Your task to perform on an android device: change notifications settings Image 0: 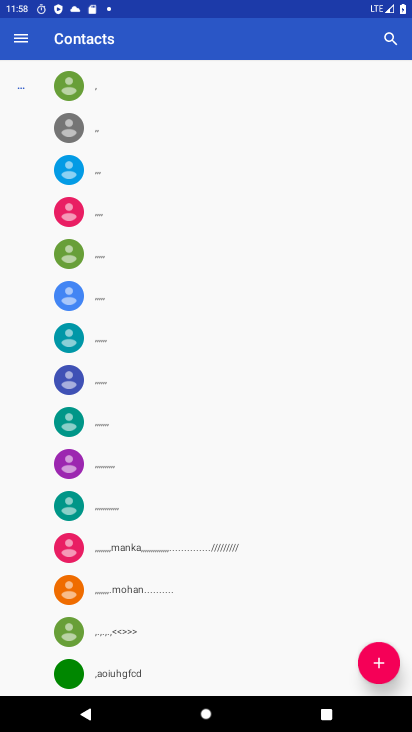
Step 0: press home button
Your task to perform on an android device: change notifications settings Image 1: 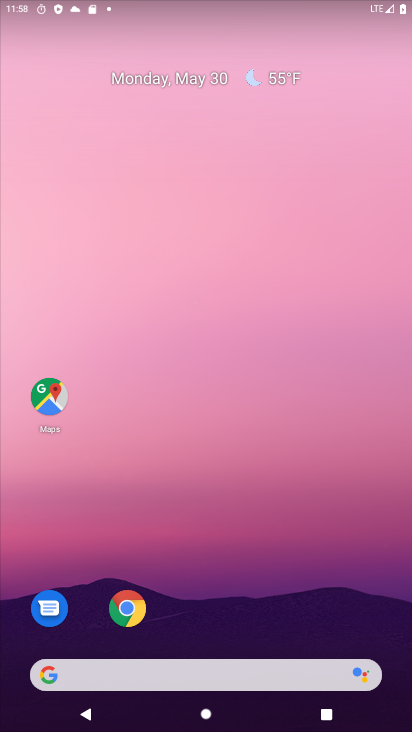
Step 1: drag from (271, 626) to (302, 5)
Your task to perform on an android device: change notifications settings Image 2: 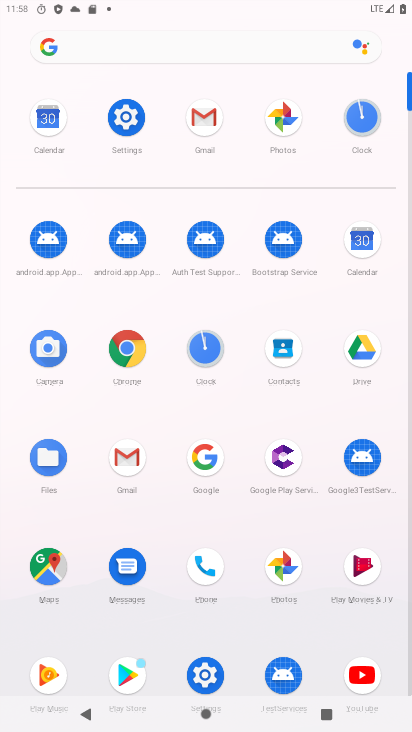
Step 2: click (127, 112)
Your task to perform on an android device: change notifications settings Image 3: 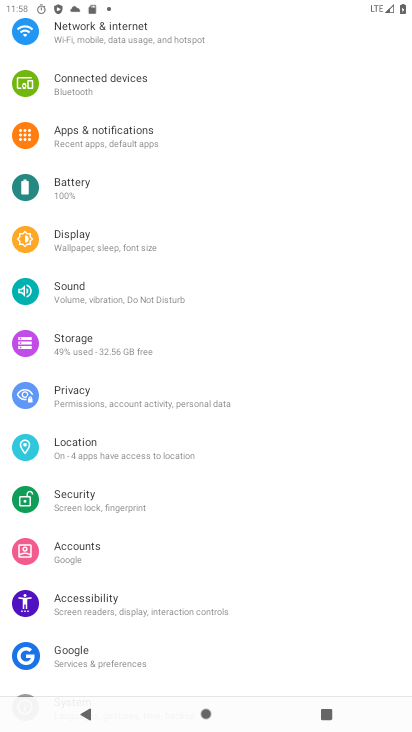
Step 3: click (123, 143)
Your task to perform on an android device: change notifications settings Image 4: 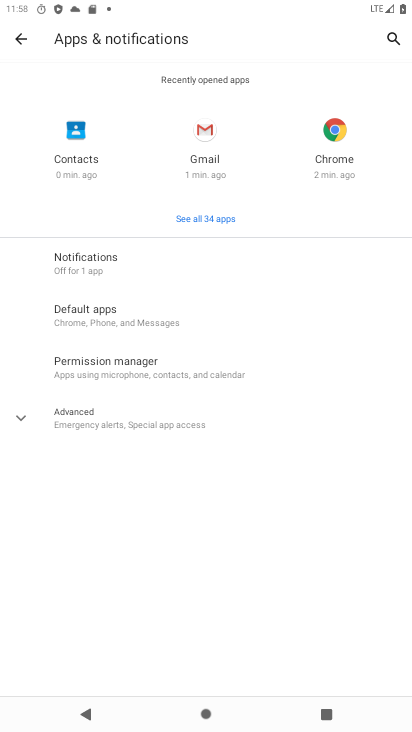
Step 4: click (94, 263)
Your task to perform on an android device: change notifications settings Image 5: 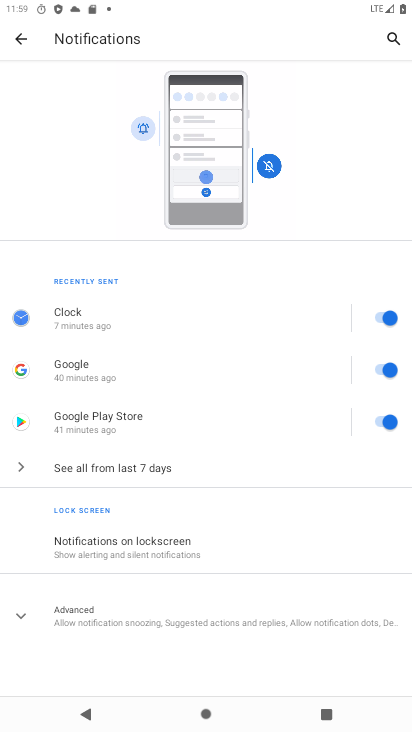
Step 5: click (127, 473)
Your task to perform on an android device: change notifications settings Image 6: 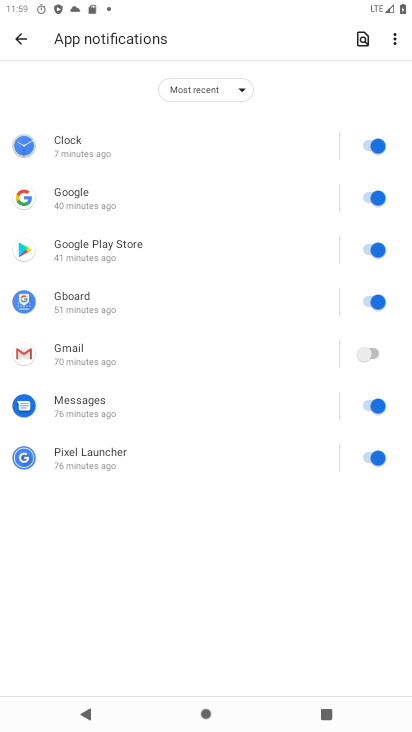
Step 6: click (244, 90)
Your task to perform on an android device: change notifications settings Image 7: 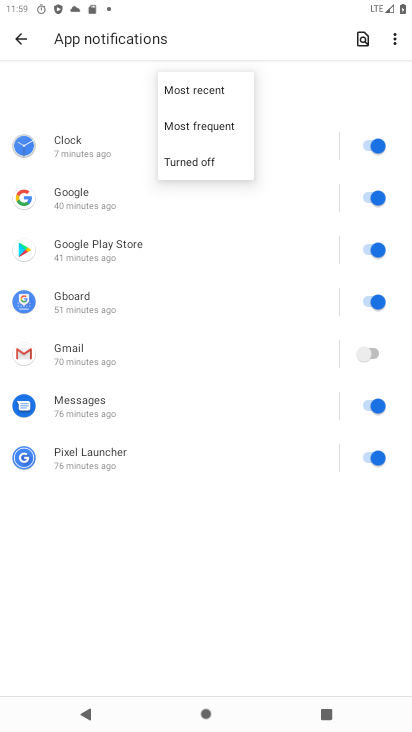
Step 7: click (205, 129)
Your task to perform on an android device: change notifications settings Image 8: 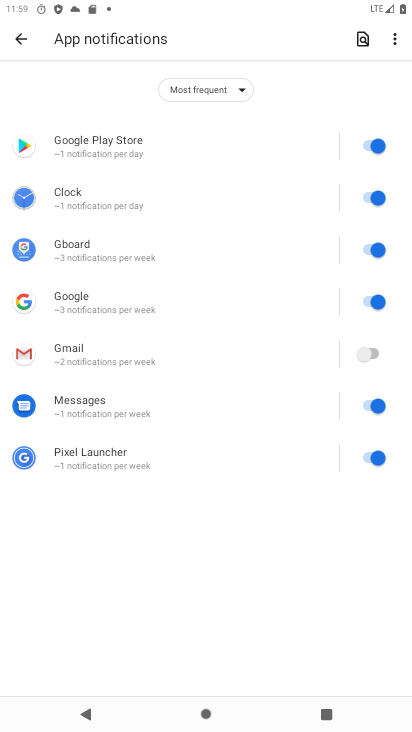
Step 8: task complete